Your task to perform on an android device: Check the news Image 0: 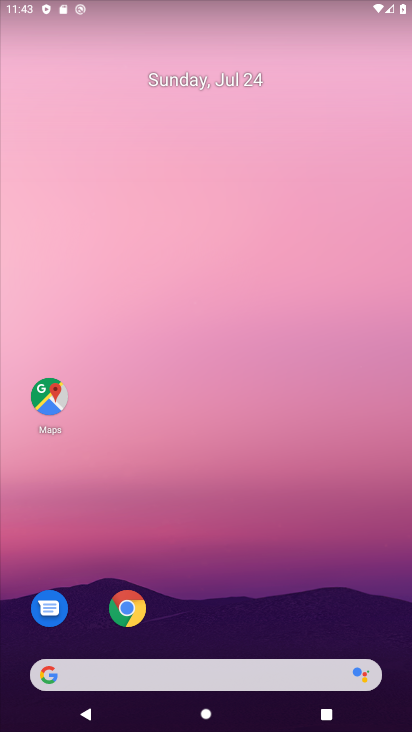
Step 0: click (134, 668)
Your task to perform on an android device: Check the news Image 1: 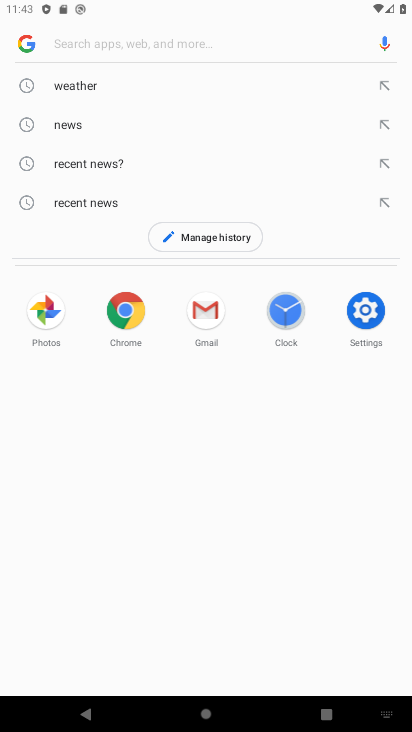
Step 1: click (85, 116)
Your task to perform on an android device: Check the news Image 2: 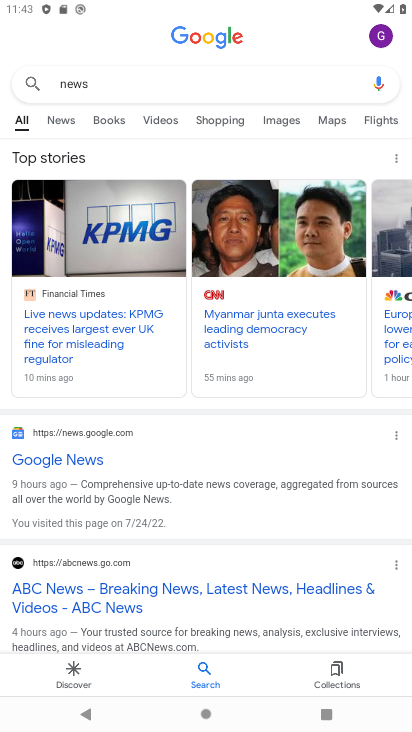
Step 2: task complete